Your task to perform on an android device: Open accessibility settings Image 0: 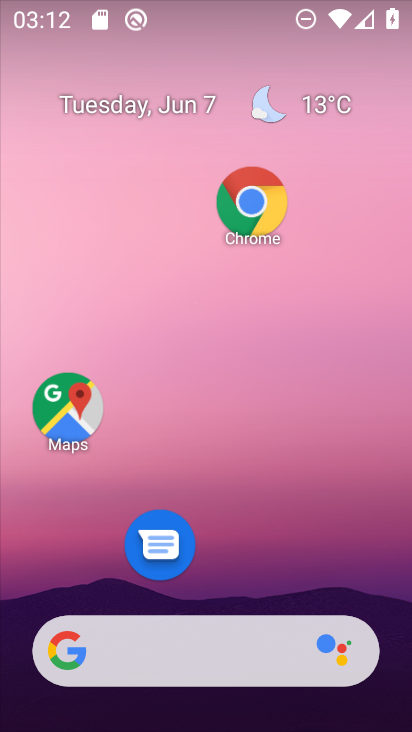
Step 0: drag from (254, 556) to (338, 159)
Your task to perform on an android device: Open accessibility settings Image 1: 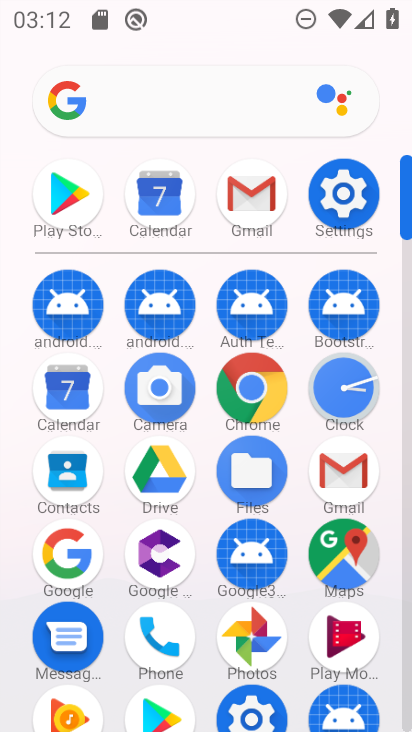
Step 1: click (332, 187)
Your task to perform on an android device: Open accessibility settings Image 2: 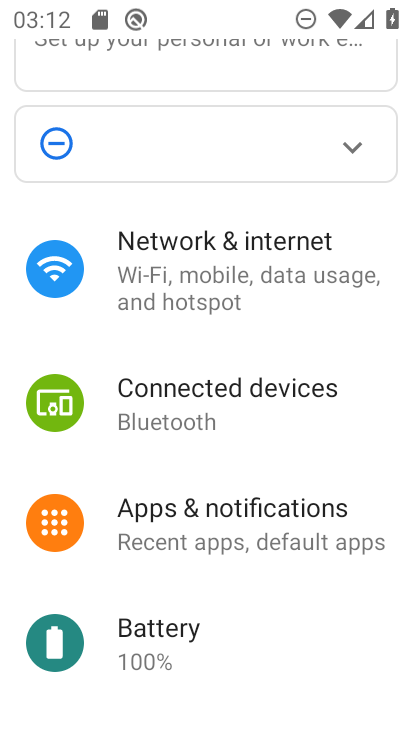
Step 2: drag from (252, 635) to (276, 312)
Your task to perform on an android device: Open accessibility settings Image 3: 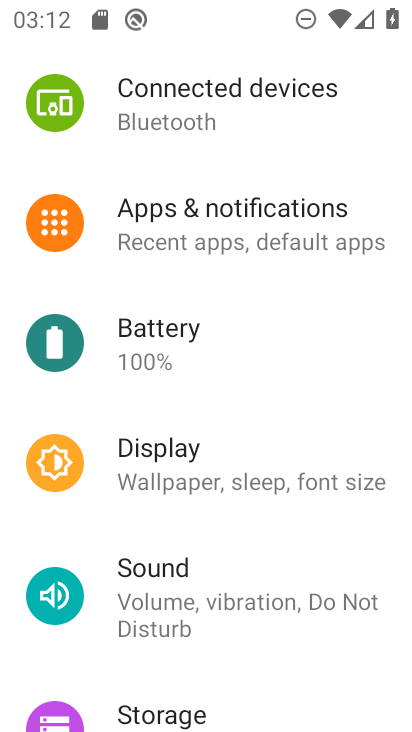
Step 3: drag from (238, 663) to (288, 328)
Your task to perform on an android device: Open accessibility settings Image 4: 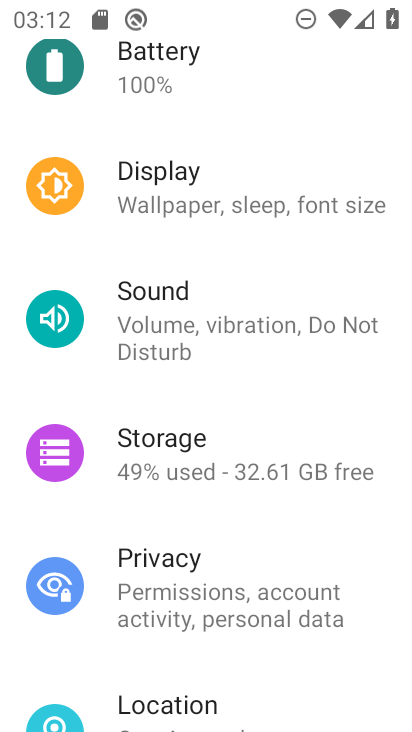
Step 4: drag from (237, 613) to (276, 244)
Your task to perform on an android device: Open accessibility settings Image 5: 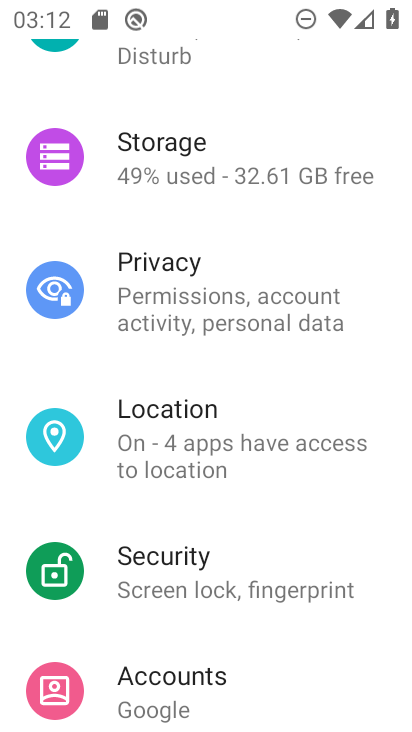
Step 5: drag from (255, 569) to (259, 286)
Your task to perform on an android device: Open accessibility settings Image 6: 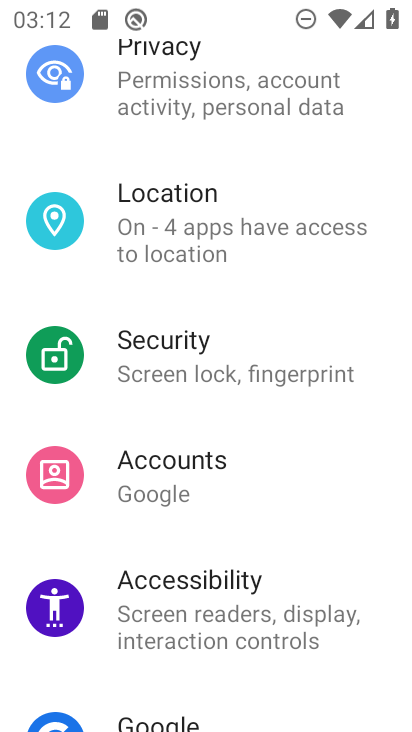
Step 6: click (208, 603)
Your task to perform on an android device: Open accessibility settings Image 7: 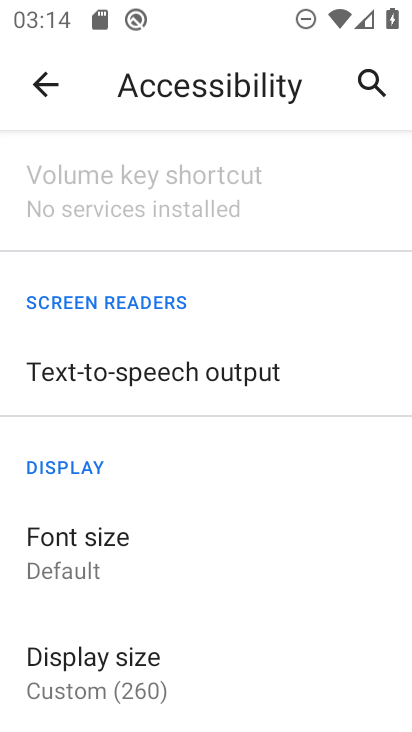
Step 7: task complete